Your task to perform on an android device: turn smart compose on in the gmail app Image 0: 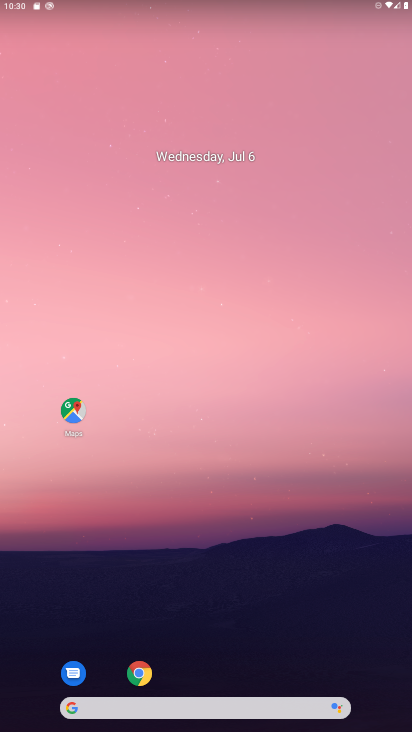
Step 0: drag from (185, 662) to (249, 159)
Your task to perform on an android device: turn smart compose on in the gmail app Image 1: 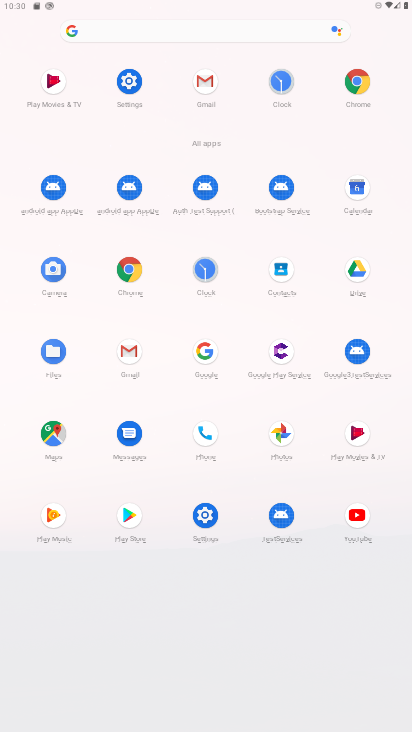
Step 1: click (199, 90)
Your task to perform on an android device: turn smart compose on in the gmail app Image 2: 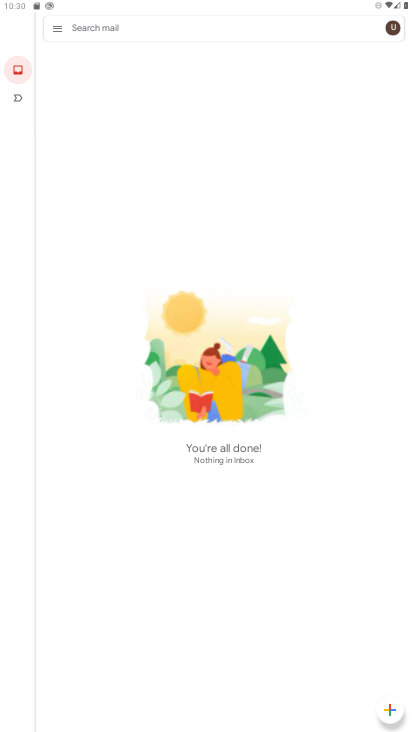
Step 2: click (61, 27)
Your task to perform on an android device: turn smart compose on in the gmail app Image 3: 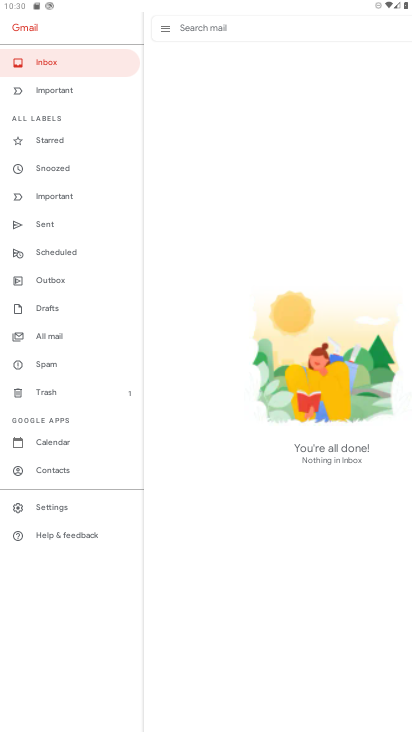
Step 3: click (51, 503)
Your task to perform on an android device: turn smart compose on in the gmail app Image 4: 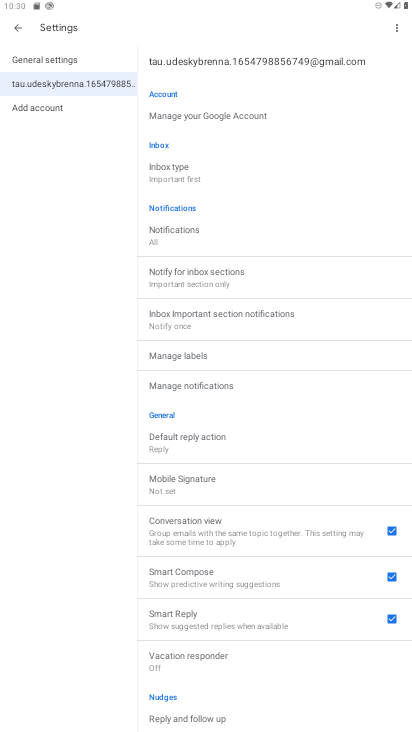
Step 4: task complete